Your task to perform on an android device: find which apps use the phone's location Image 0: 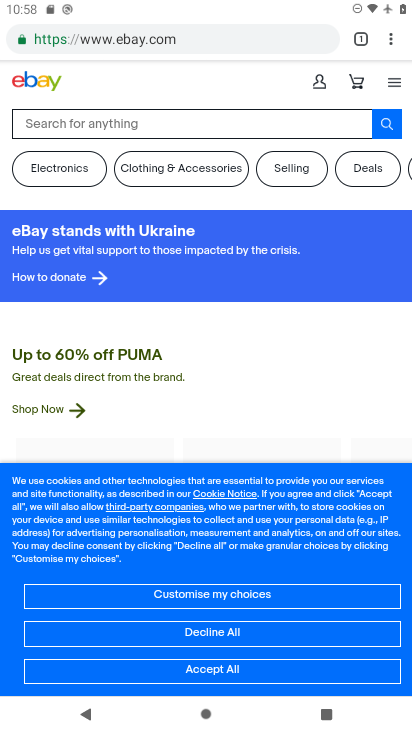
Step 0: press home button
Your task to perform on an android device: find which apps use the phone's location Image 1: 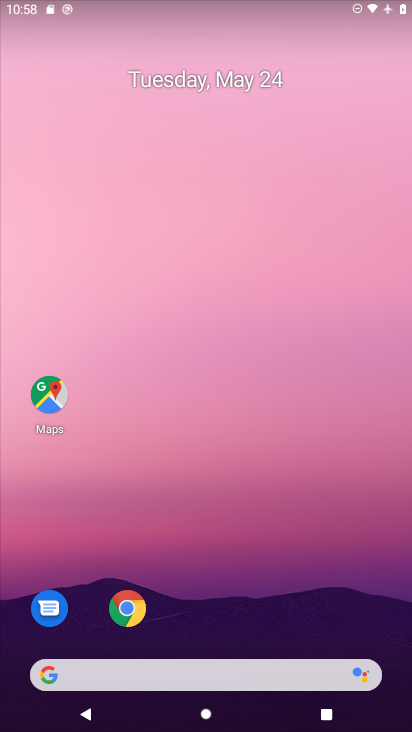
Step 1: drag from (381, 636) to (318, 92)
Your task to perform on an android device: find which apps use the phone's location Image 2: 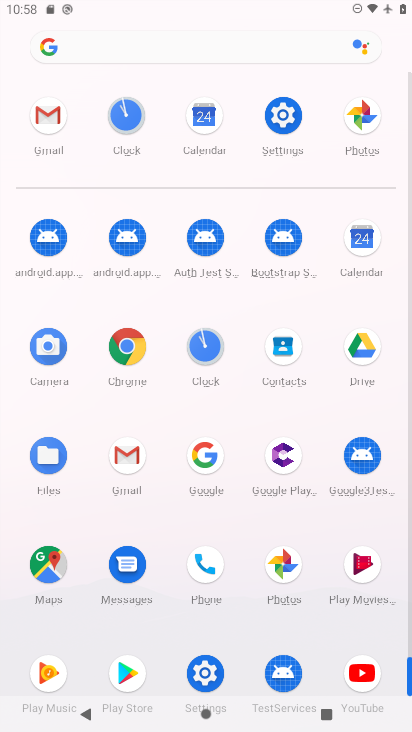
Step 2: click (204, 672)
Your task to perform on an android device: find which apps use the phone's location Image 3: 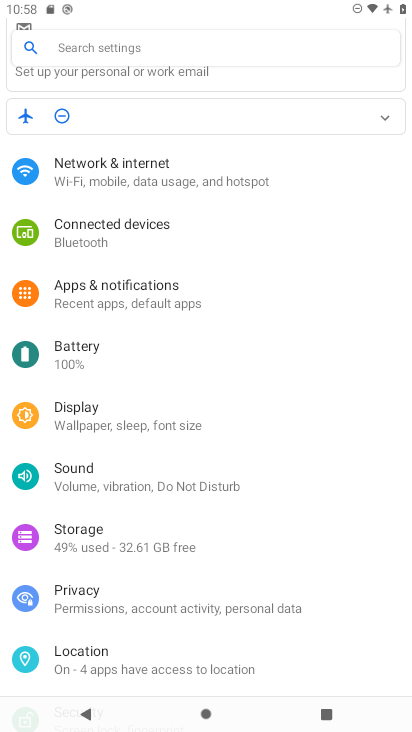
Step 3: click (105, 652)
Your task to perform on an android device: find which apps use the phone's location Image 4: 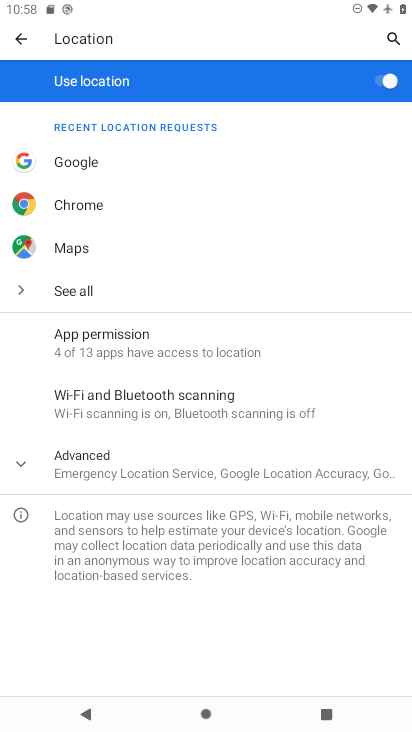
Step 4: click (77, 340)
Your task to perform on an android device: find which apps use the phone's location Image 5: 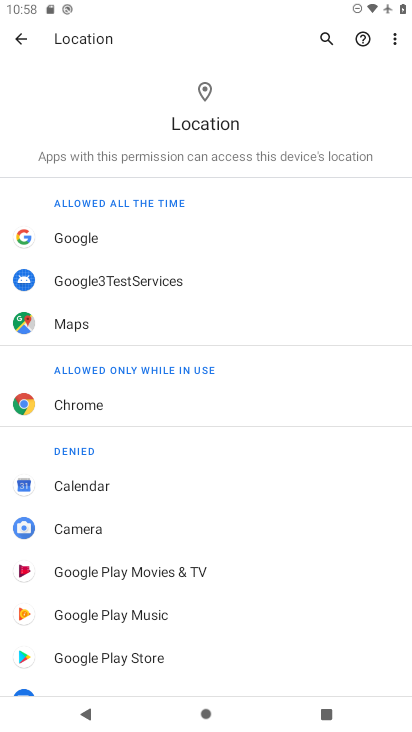
Step 5: drag from (230, 608) to (255, 146)
Your task to perform on an android device: find which apps use the phone's location Image 6: 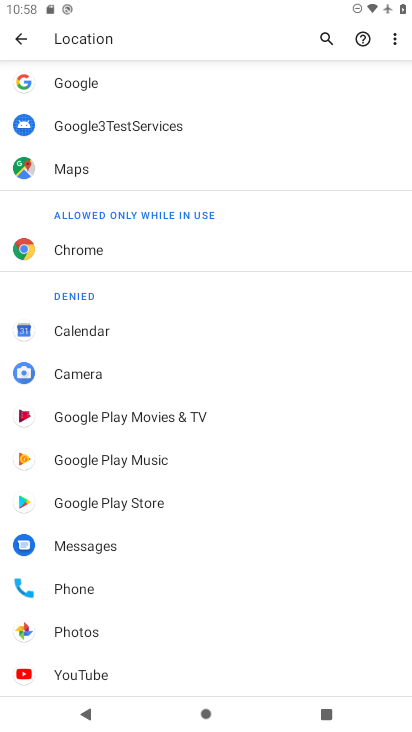
Step 6: click (66, 630)
Your task to perform on an android device: find which apps use the phone's location Image 7: 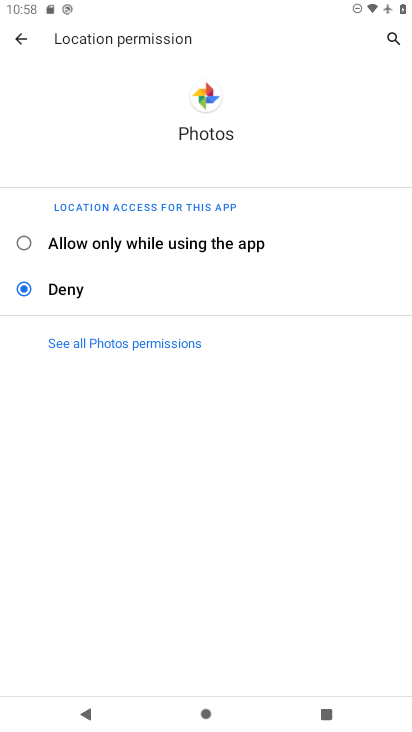
Step 7: task complete